Your task to perform on an android device: Open network settings Image 0: 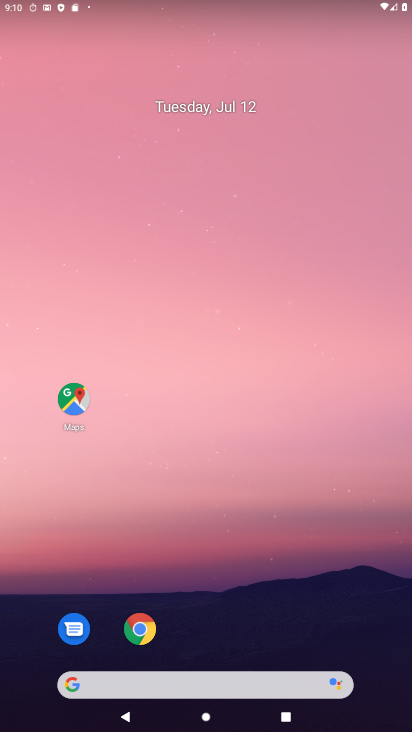
Step 0: drag from (331, 683) to (223, 222)
Your task to perform on an android device: Open network settings Image 1: 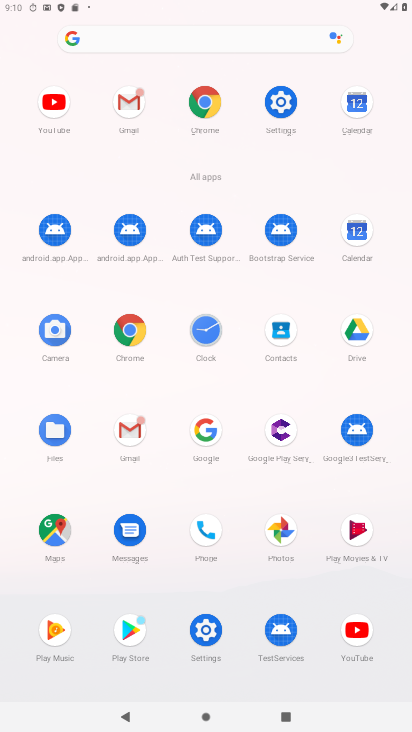
Step 1: click (284, 103)
Your task to perform on an android device: Open network settings Image 2: 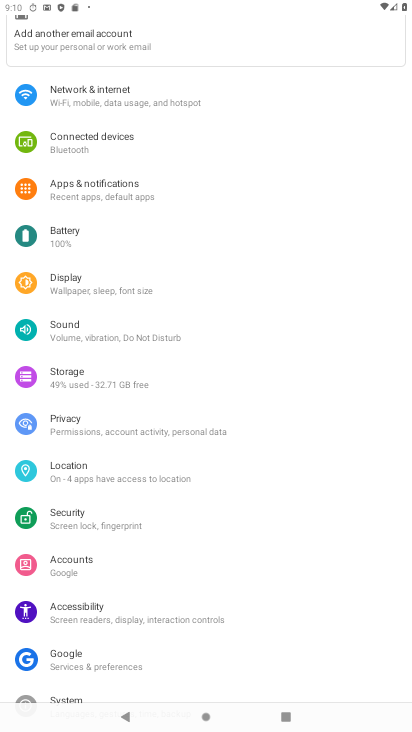
Step 2: click (125, 104)
Your task to perform on an android device: Open network settings Image 3: 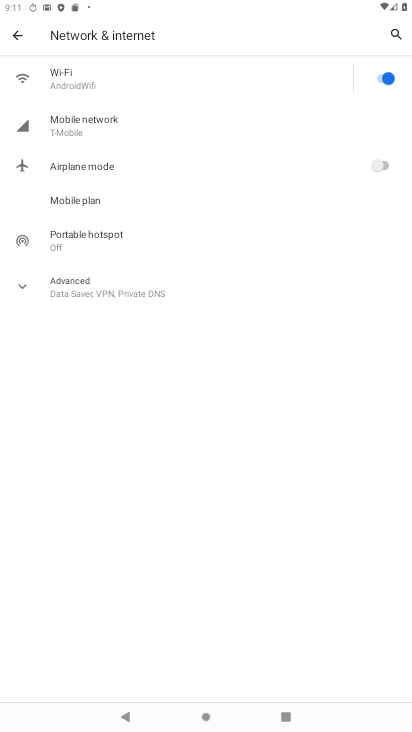
Step 3: task complete